Your task to perform on an android device: change the clock display to analog Image 0: 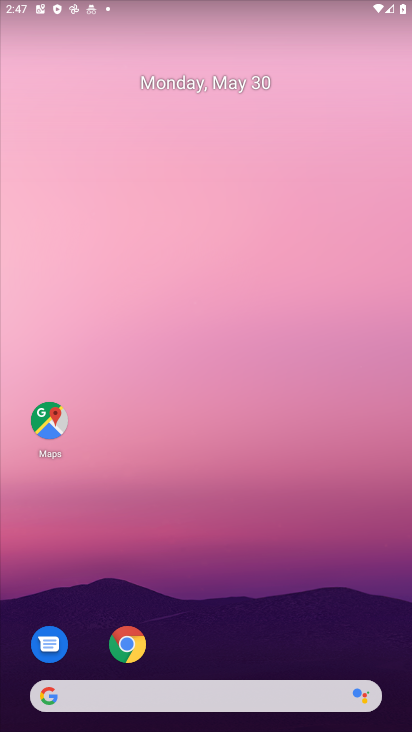
Step 0: click (244, 659)
Your task to perform on an android device: change the clock display to analog Image 1: 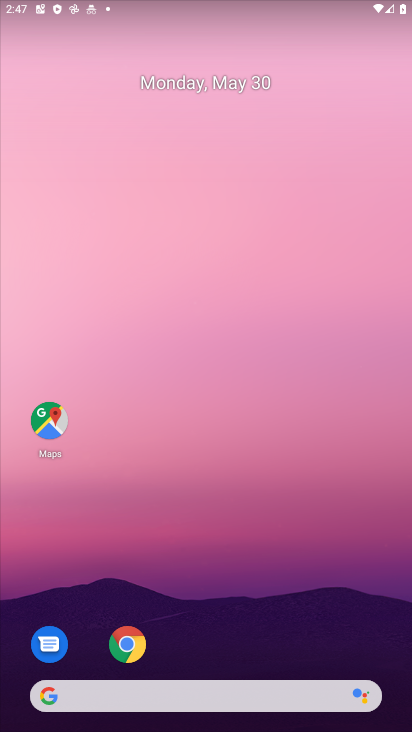
Step 1: drag from (244, 659) to (208, 209)
Your task to perform on an android device: change the clock display to analog Image 2: 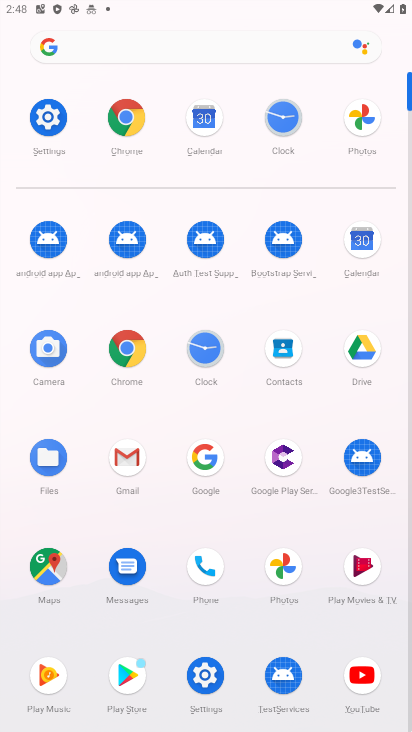
Step 2: click (283, 143)
Your task to perform on an android device: change the clock display to analog Image 3: 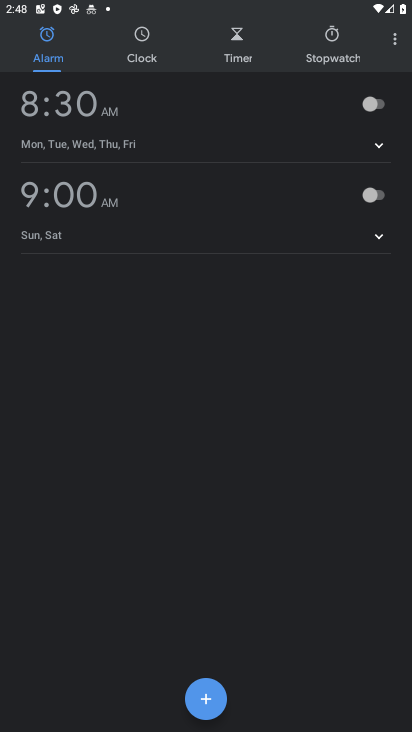
Step 3: task complete